Your task to perform on an android device: turn on location history Image 0: 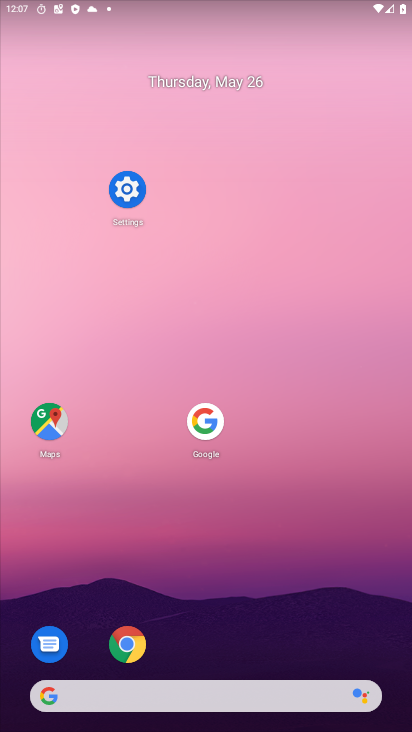
Step 0: drag from (253, 591) to (300, 120)
Your task to perform on an android device: turn on location history Image 1: 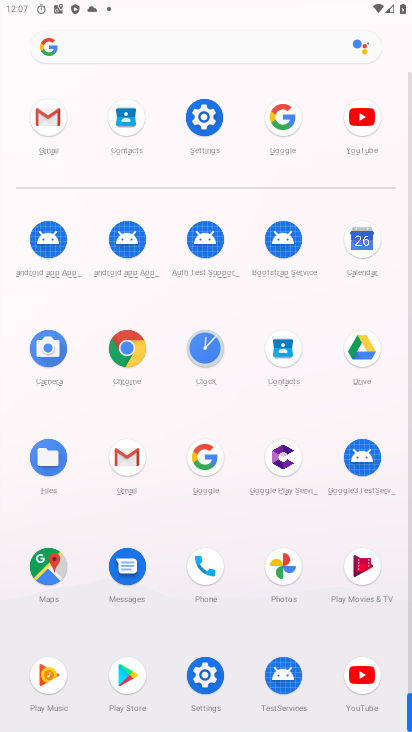
Step 1: click (206, 104)
Your task to perform on an android device: turn on location history Image 2: 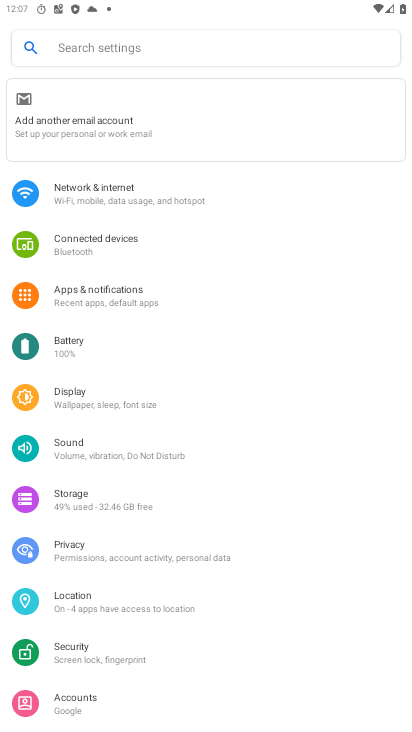
Step 2: click (117, 613)
Your task to perform on an android device: turn on location history Image 3: 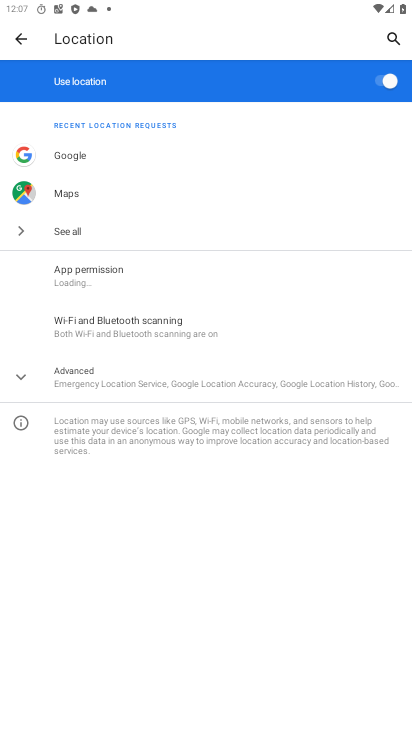
Step 3: click (113, 386)
Your task to perform on an android device: turn on location history Image 4: 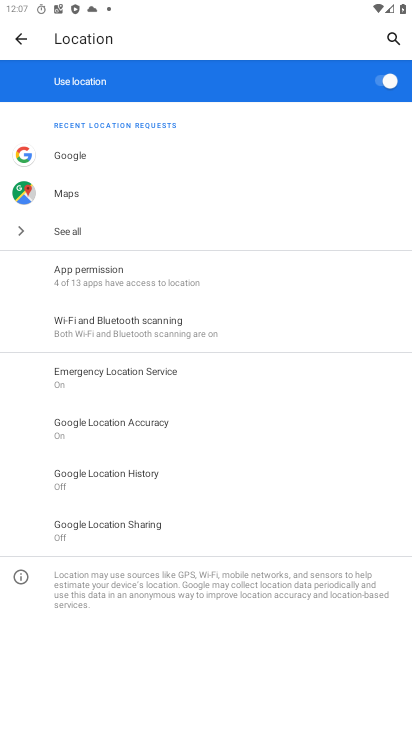
Step 4: click (136, 467)
Your task to perform on an android device: turn on location history Image 5: 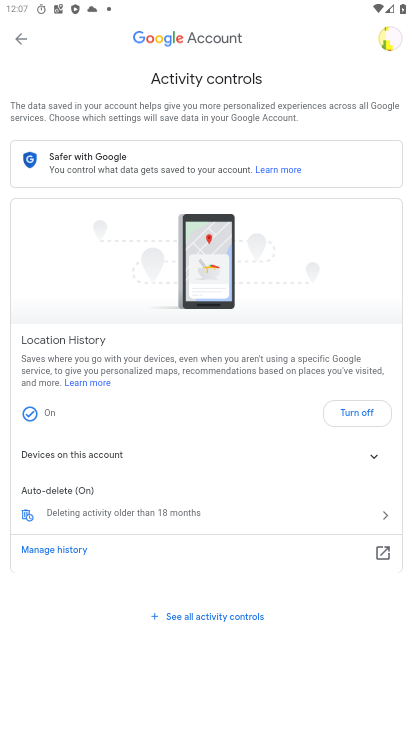
Step 5: task complete